Your task to perform on an android device: turn on improve location accuracy Image 0: 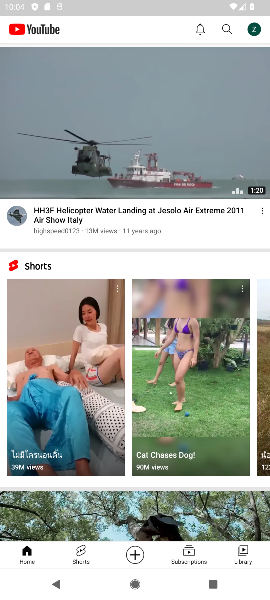
Step 0: press home button
Your task to perform on an android device: turn on improve location accuracy Image 1: 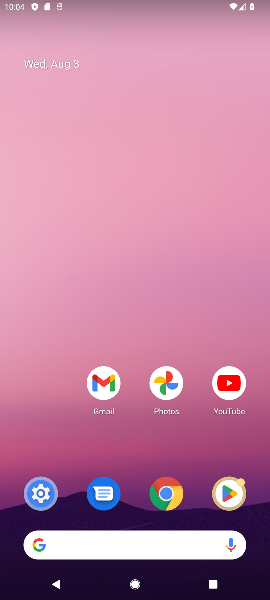
Step 1: drag from (131, 450) to (129, 1)
Your task to perform on an android device: turn on improve location accuracy Image 2: 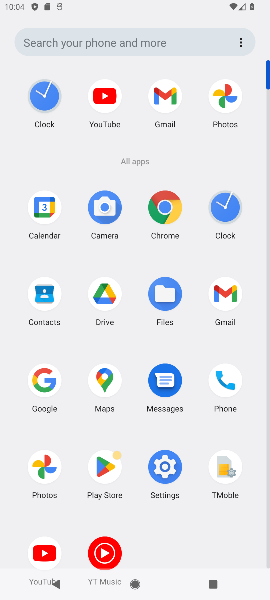
Step 2: click (165, 461)
Your task to perform on an android device: turn on improve location accuracy Image 3: 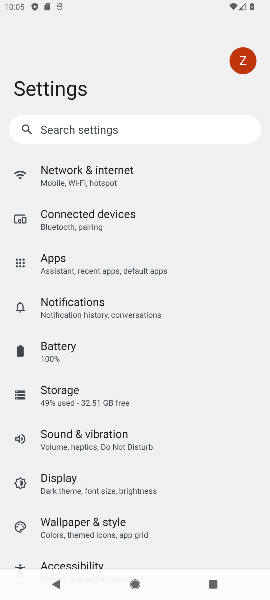
Step 3: drag from (75, 547) to (98, 342)
Your task to perform on an android device: turn on improve location accuracy Image 4: 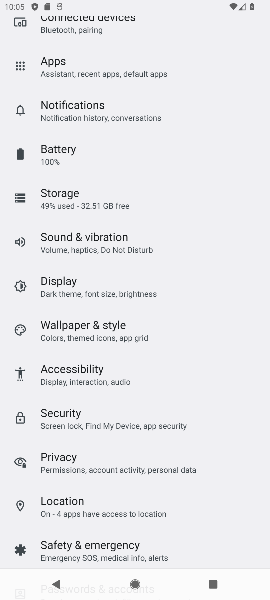
Step 4: click (86, 507)
Your task to perform on an android device: turn on improve location accuracy Image 5: 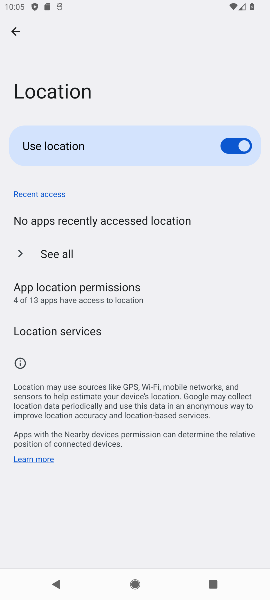
Step 5: click (49, 329)
Your task to perform on an android device: turn on improve location accuracy Image 6: 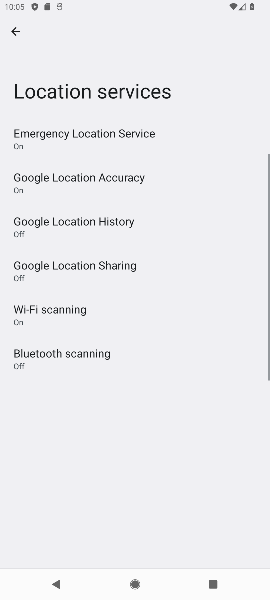
Step 6: click (123, 180)
Your task to perform on an android device: turn on improve location accuracy Image 7: 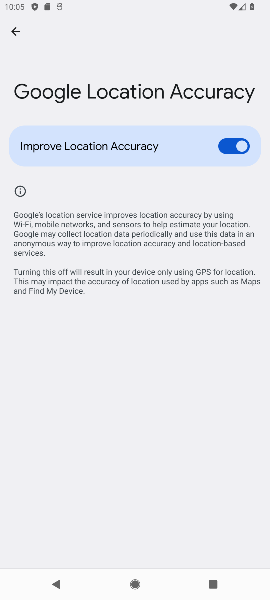
Step 7: task complete